Your task to perform on an android device: change the clock style Image 0: 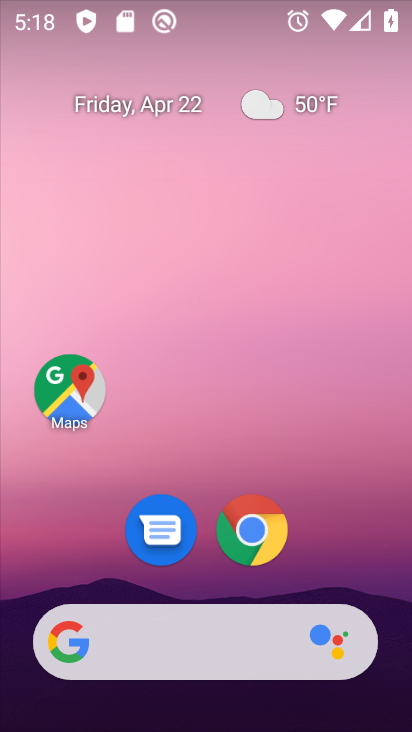
Step 0: drag from (318, 544) to (314, 103)
Your task to perform on an android device: change the clock style Image 1: 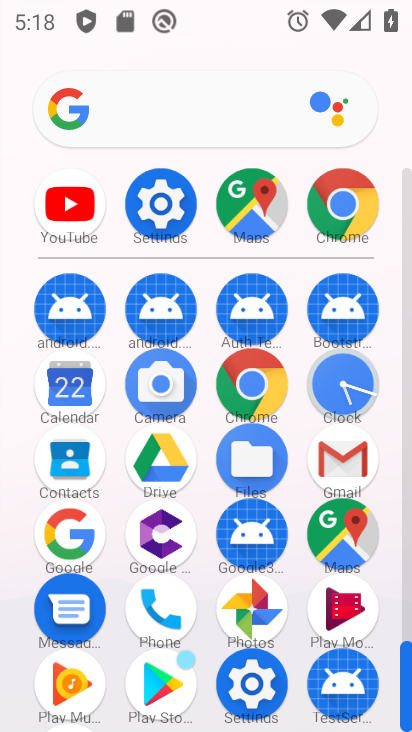
Step 1: click (339, 384)
Your task to perform on an android device: change the clock style Image 2: 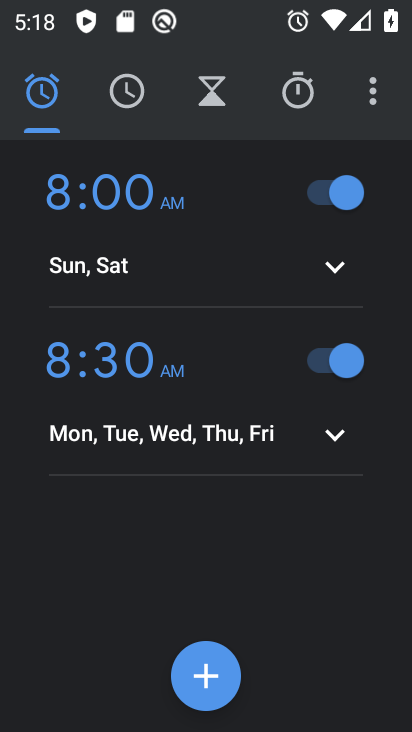
Step 2: click (369, 104)
Your task to perform on an android device: change the clock style Image 3: 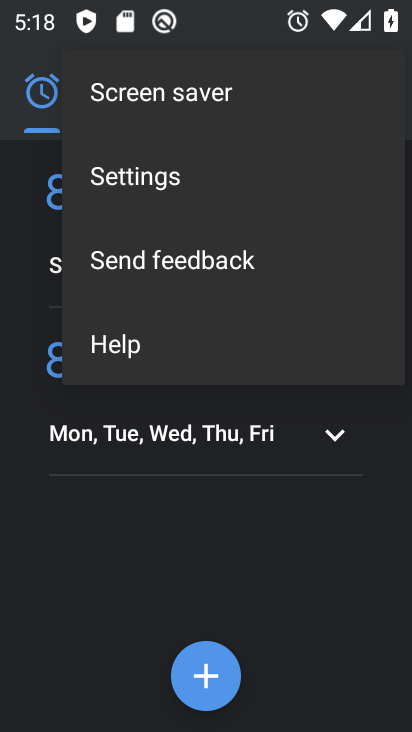
Step 3: click (145, 180)
Your task to perform on an android device: change the clock style Image 4: 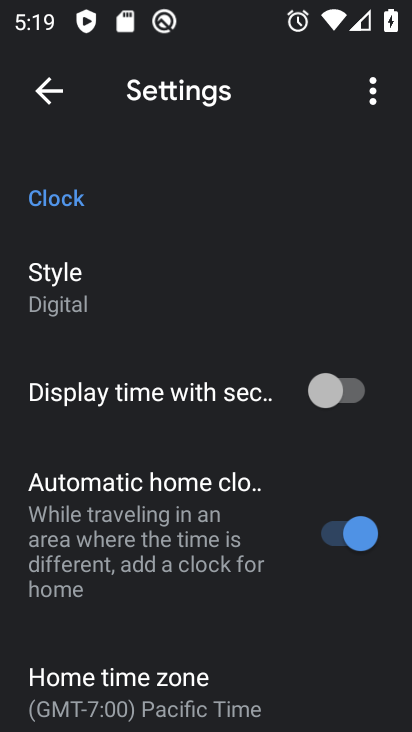
Step 4: click (69, 280)
Your task to perform on an android device: change the clock style Image 5: 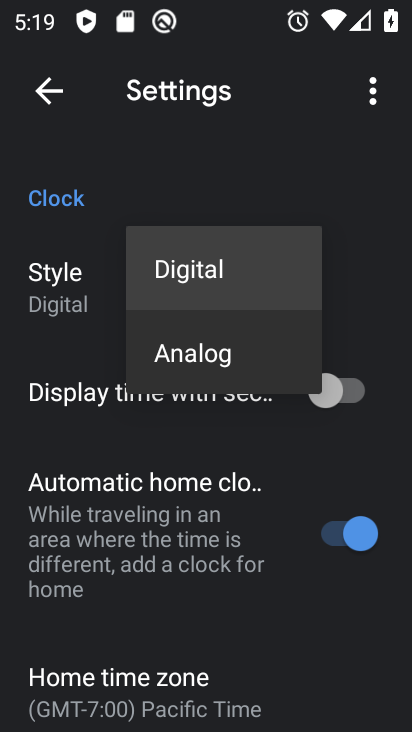
Step 5: click (243, 343)
Your task to perform on an android device: change the clock style Image 6: 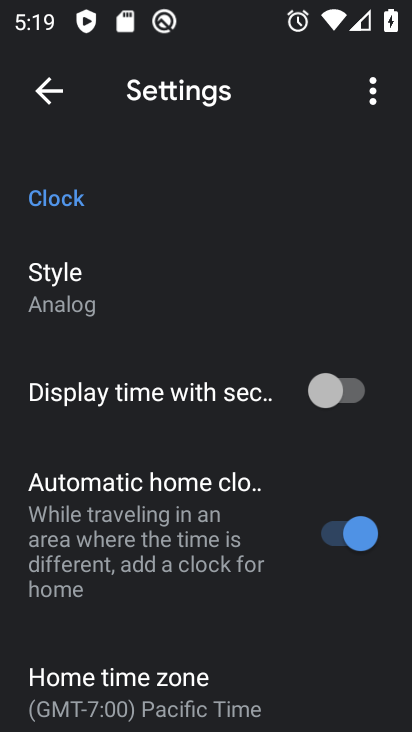
Step 6: task complete